Your task to perform on an android device: Search for Mexican restaurants on Maps Image 0: 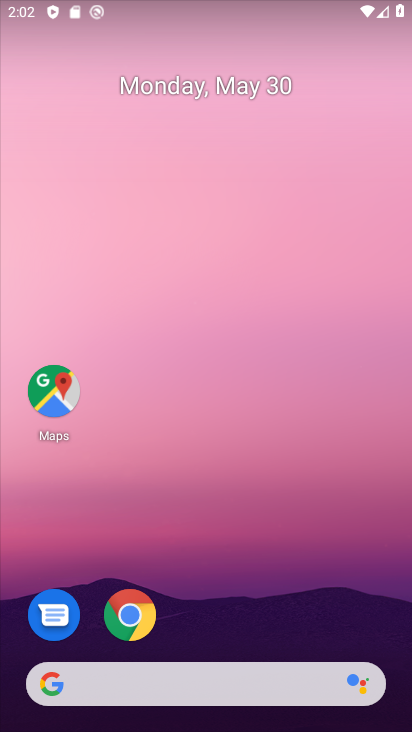
Step 0: click (57, 404)
Your task to perform on an android device: Search for Mexican restaurants on Maps Image 1: 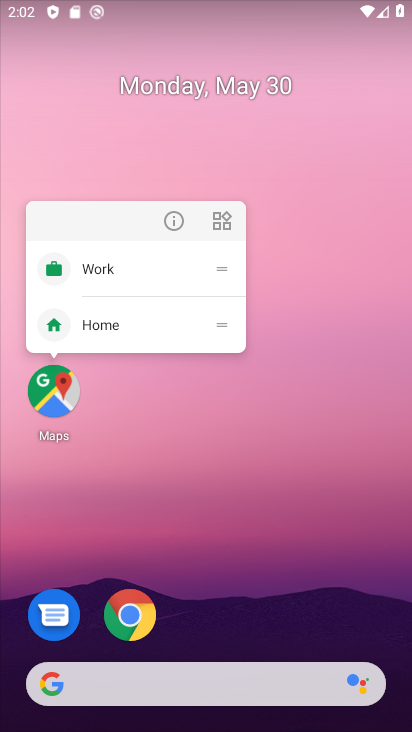
Step 1: click (63, 389)
Your task to perform on an android device: Search for Mexican restaurants on Maps Image 2: 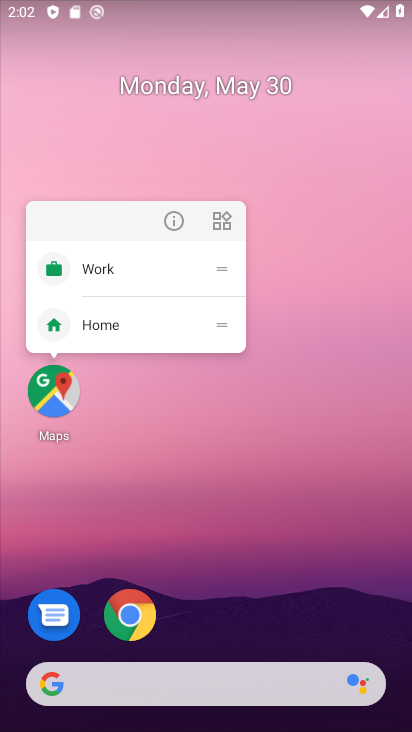
Step 2: click (51, 391)
Your task to perform on an android device: Search for Mexican restaurants on Maps Image 3: 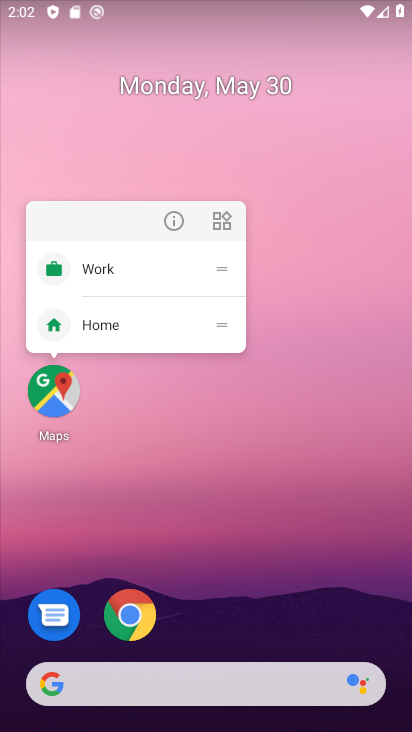
Step 3: click (51, 398)
Your task to perform on an android device: Search for Mexican restaurants on Maps Image 4: 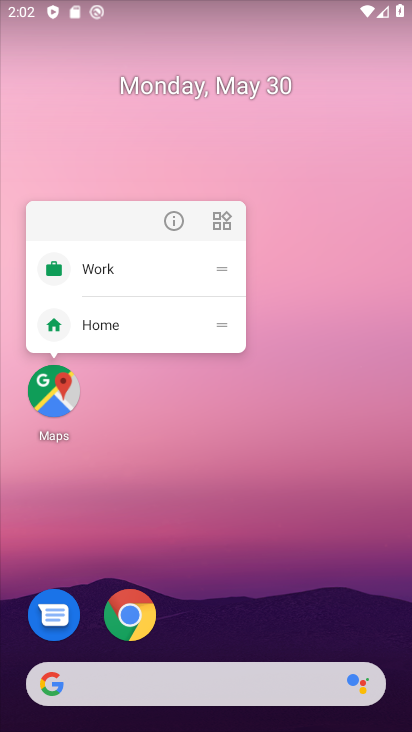
Step 4: click (51, 408)
Your task to perform on an android device: Search for Mexican restaurants on Maps Image 5: 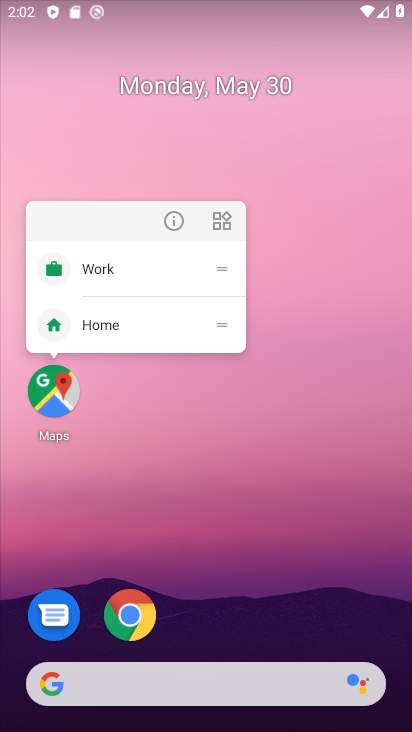
Step 5: click (51, 408)
Your task to perform on an android device: Search for Mexican restaurants on Maps Image 6: 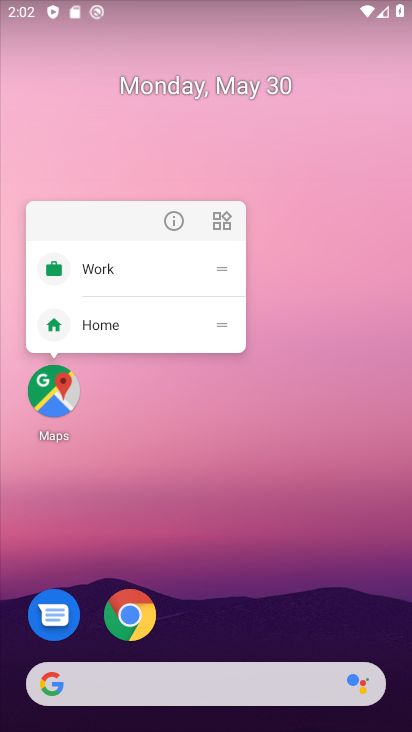
Step 6: click (50, 401)
Your task to perform on an android device: Search for Mexican restaurants on Maps Image 7: 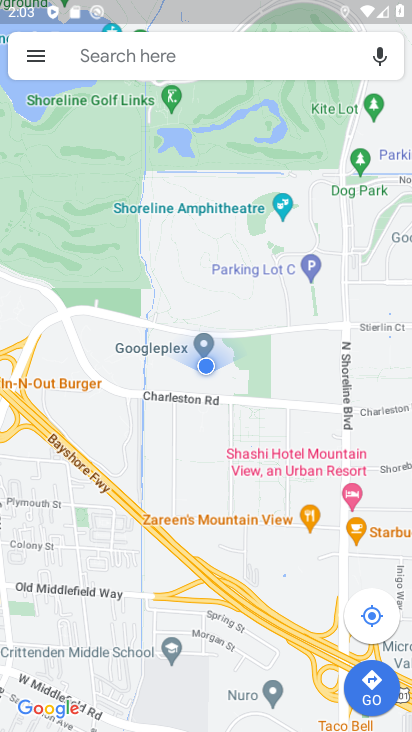
Step 7: click (168, 61)
Your task to perform on an android device: Search for Mexican restaurants on Maps Image 8: 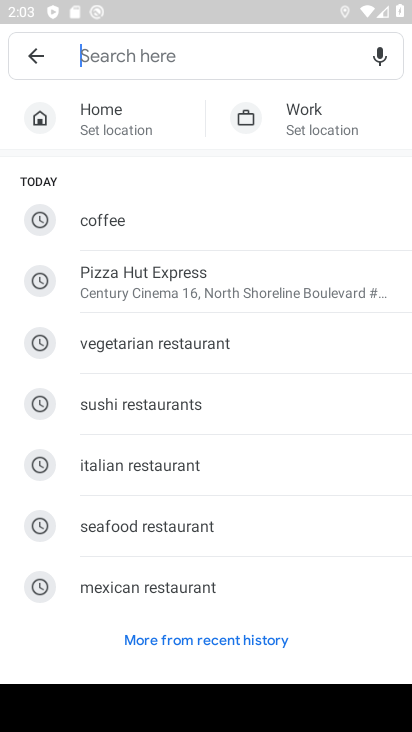
Step 8: click (168, 61)
Your task to perform on an android device: Search for Mexican restaurants on Maps Image 9: 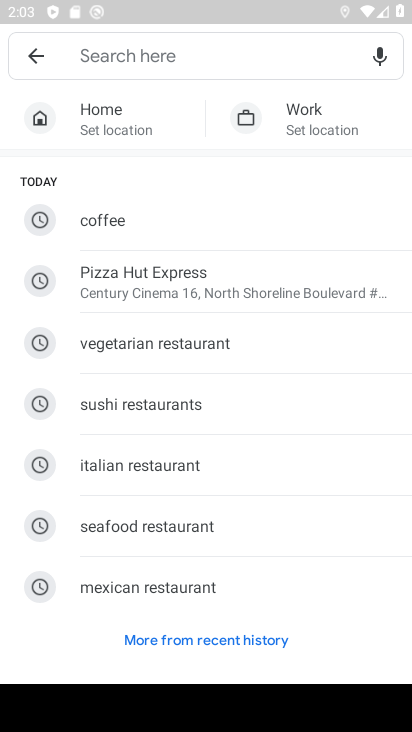
Step 9: type "Mexican restaurants"
Your task to perform on an android device: Search for Mexican restaurants on Maps Image 10: 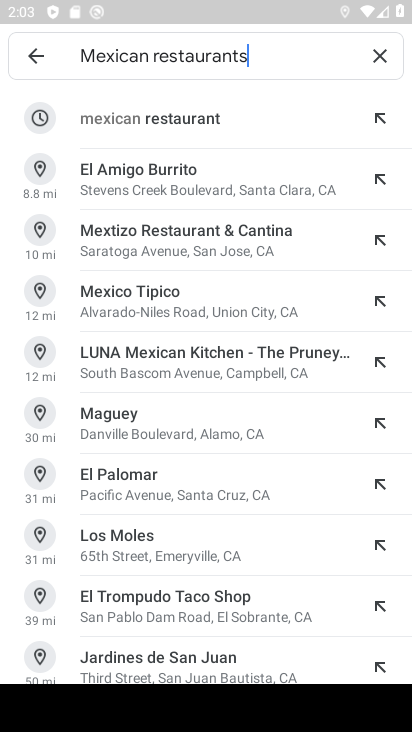
Step 10: click (192, 131)
Your task to perform on an android device: Search for Mexican restaurants on Maps Image 11: 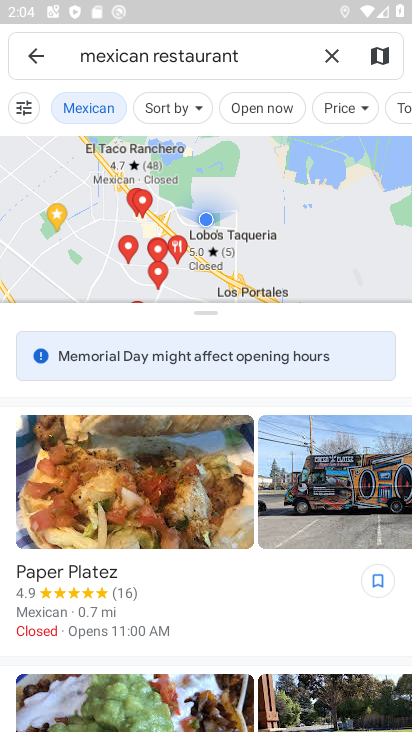
Step 11: task complete